Your task to perform on an android device: Open location settings Image 0: 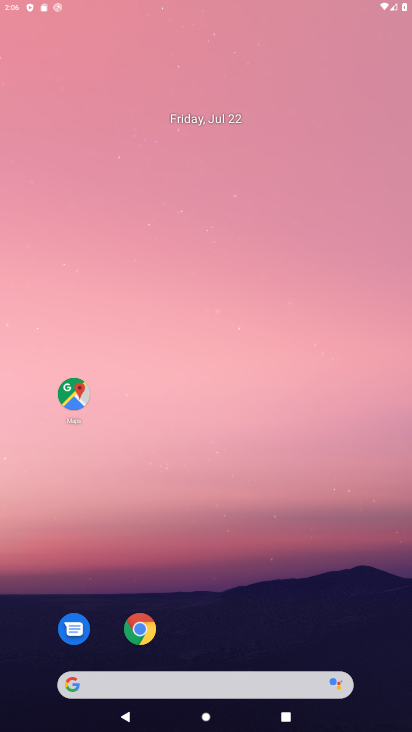
Step 0: press home button
Your task to perform on an android device: Open location settings Image 1: 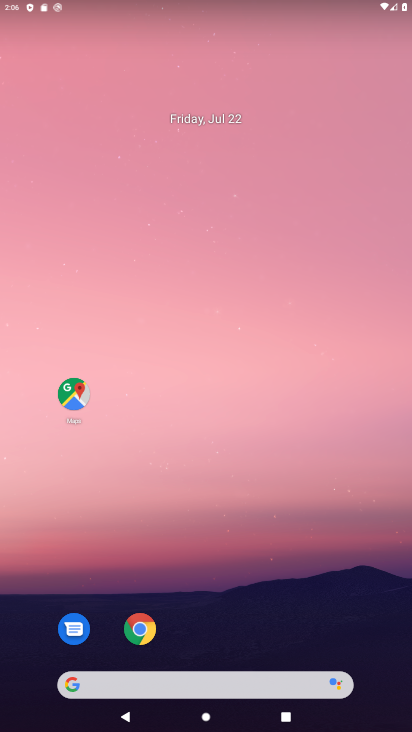
Step 1: drag from (240, 621) to (129, 24)
Your task to perform on an android device: Open location settings Image 2: 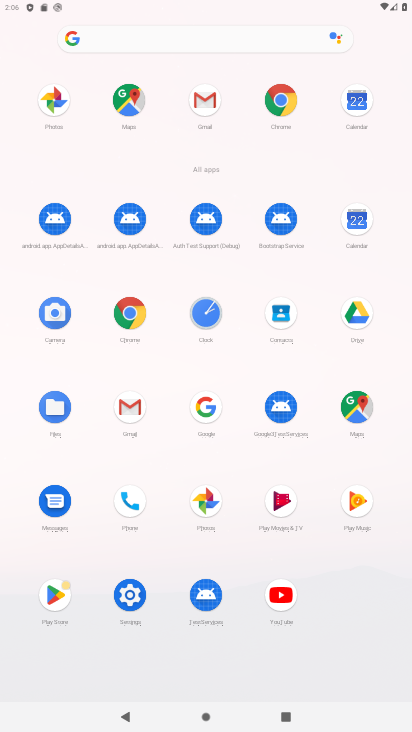
Step 2: click (128, 597)
Your task to perform on an android device: Open location settings Image 3: 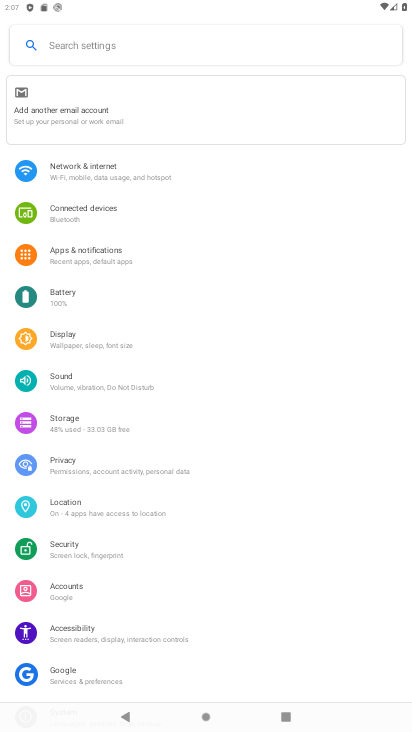
Step 3: drag from (290, 587) to (246, 234)
Your task to perform on an android device: Open location settings Image 4: 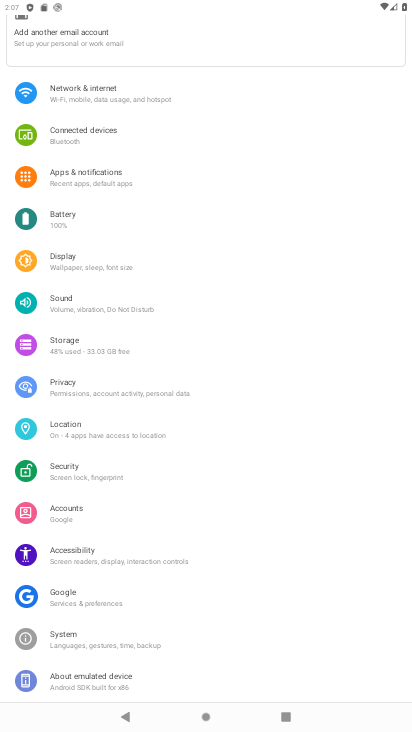
Step 4: click (77, 427)
Your task to perform on an android device: Open location settings Image 5: 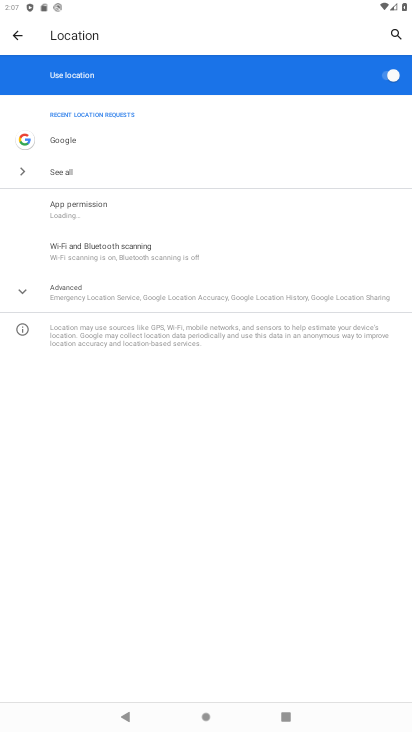
Step 5: task complete